Your task to perform on an android device: toggle notification dots Image 0: 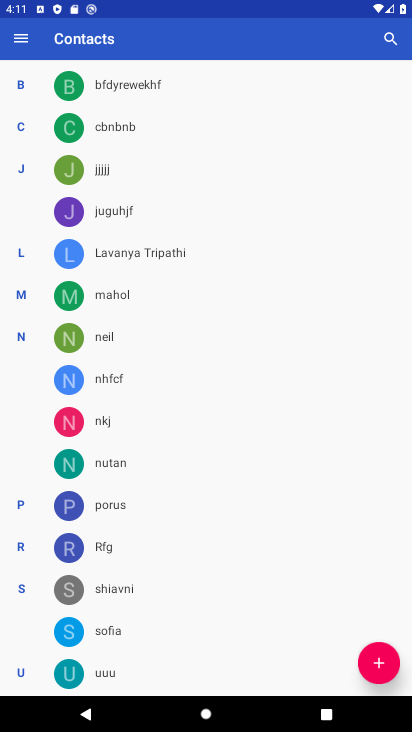
Step 0: press home button
Your task to perform on an android device: toggle notification dots Image 1: 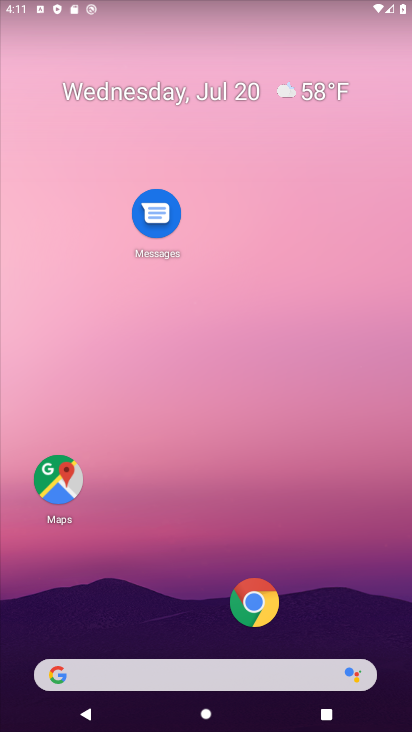
Step 1: drag from (177, 498) to (191, 193)
Your task to perform on an android device: toggle notification dots Image 2: 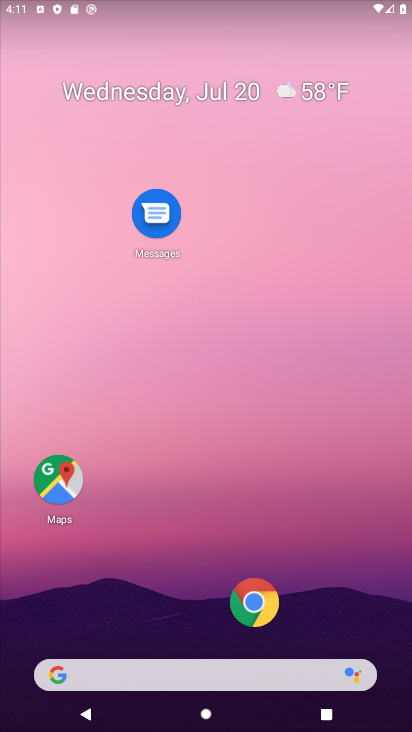
Step 2: drag from (174, 498) to (177, 1)
Your task to perform on an android device: toggle notification dots Image 3: 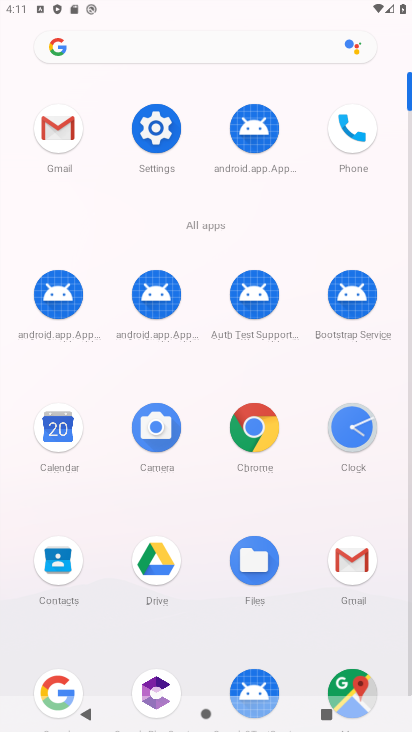
Step 3: click (153, 132)
Your task to perform on an android device: toggle notification dots Image 4: 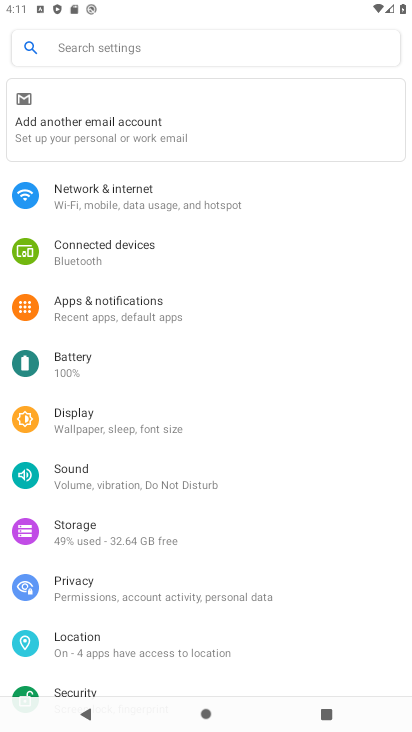
Step 4: click (129, 303)
Your task to perform on an android device: toggle notification dots Image 5: 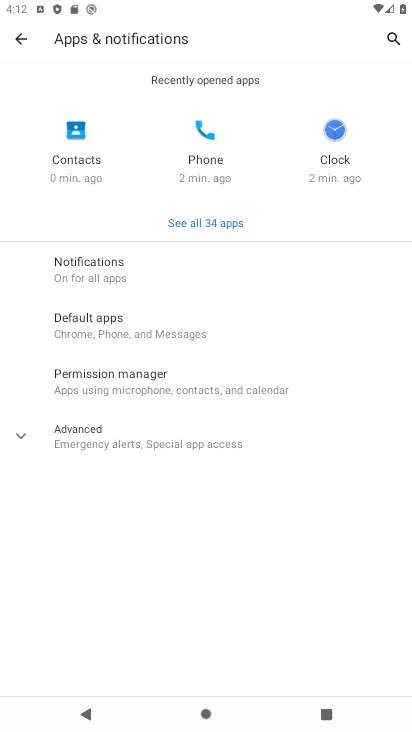
Step 5: click (99, 273)
Your task to perform on an android device: toggle notification dots Image 6: 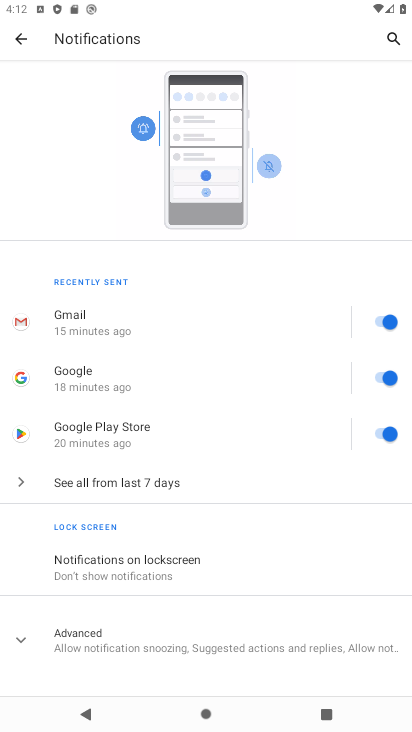
Step 6: click (80, 643)
Your task to perform on an android device: toggle notification dots Image 7: 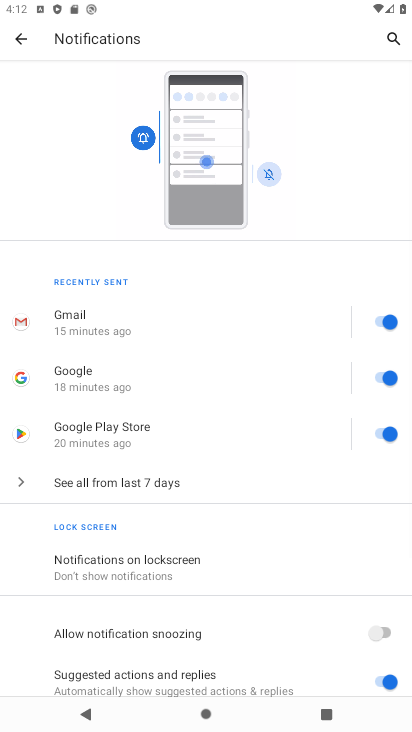
Step 7: drag from (148, 618) to (153, 340)
Your task to perform on an android device: toggle notification dots Image 8: 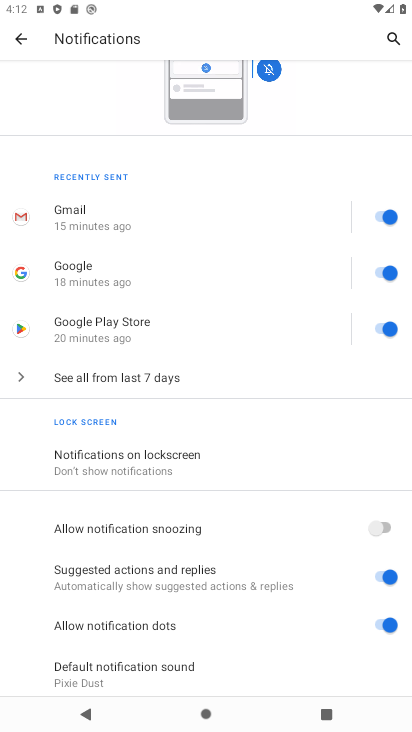
Step 8: click (375, 620)
Your task to perform on an android device: toggle notification dots Image 9: 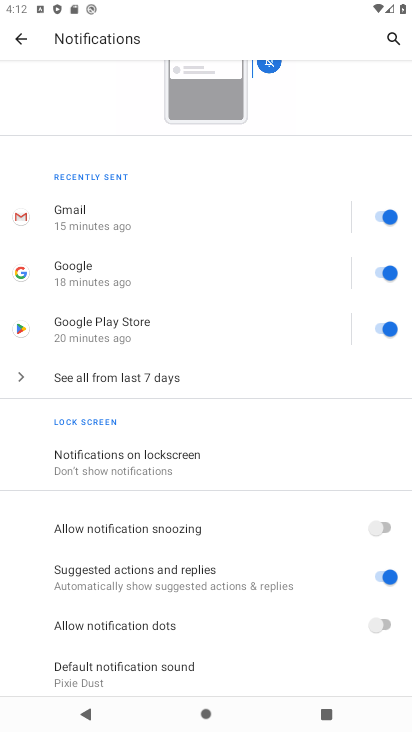
Step 9: task complete